Your task to perform on an android device: open chrome privacy settings Image 0: 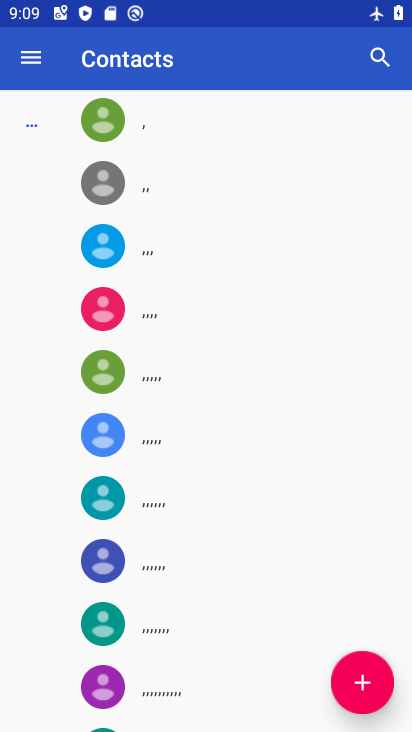
Step 0: press home button
Your task to perform on an android device: open chrome privacy settings Image 1: 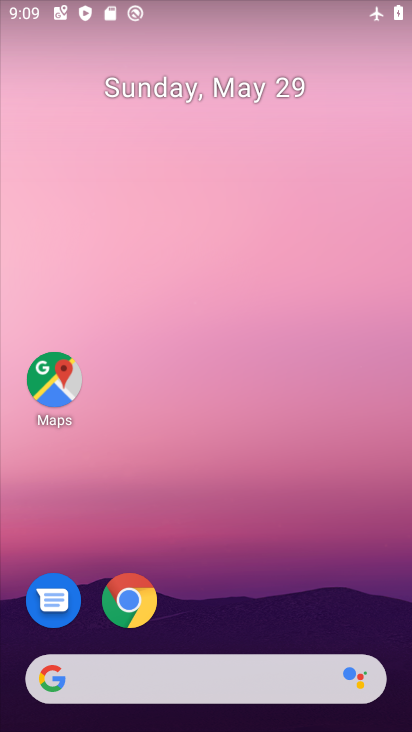
Step 1: click (136, 602)
Your task to perform on an android device: open chrome privacy settings Image 2: 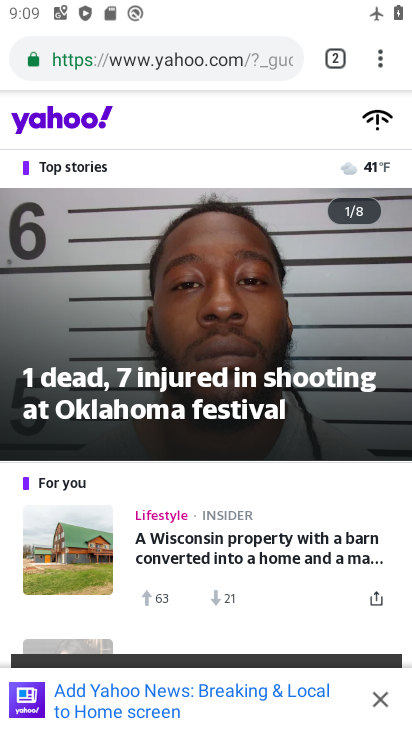
Step 2: click (384, 67)
Your task to perform on an android device: open chrome privacy settings Image 3: 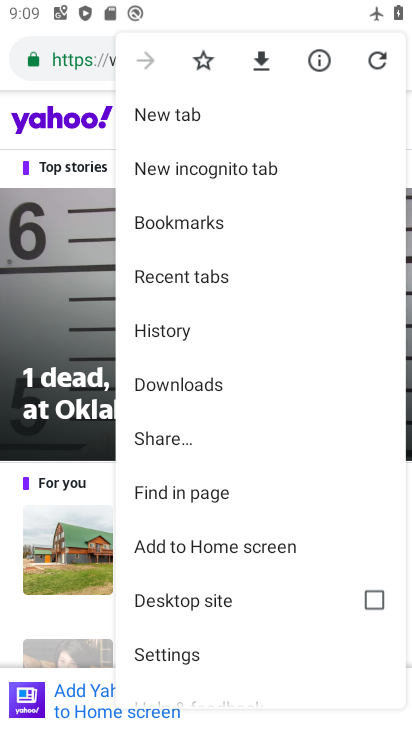
Step 3: click (170, 651)
Your task to perform on an android device: open chrome privacy settings Image 4: 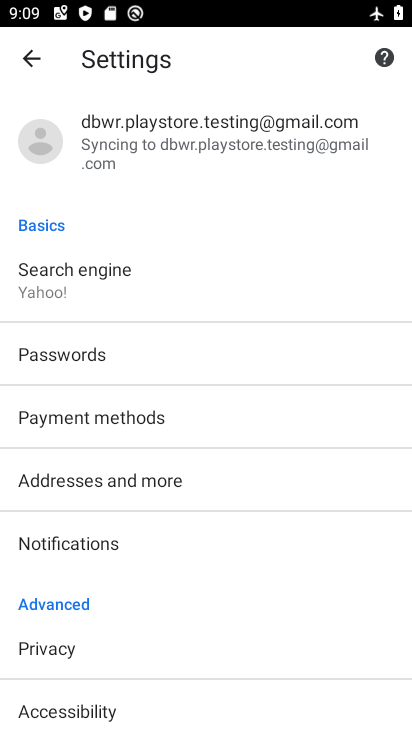
Step 4: click (63, 643)
Your task to perform on an android device: open chrome privacy settings Image 5: 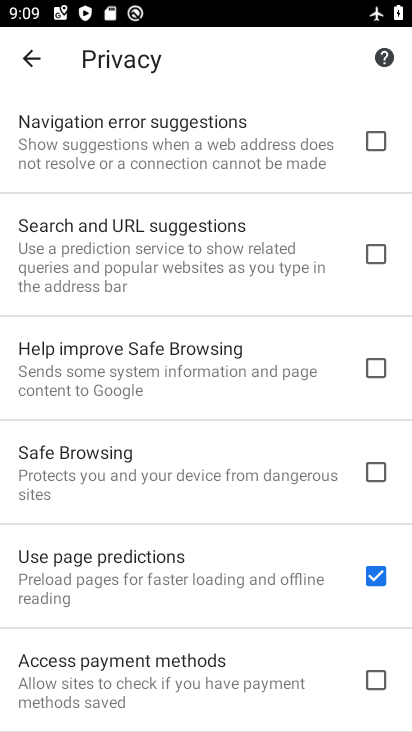
Step 5: task complete